Your task to perform on an android device: Open privacy settings Image 0: 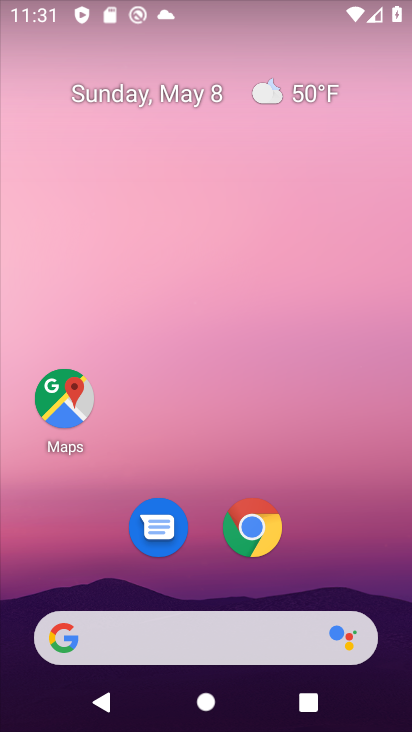
Step 0: drag from (226, 725) to (234, 228)
Your task to perform on an android device: Open privacy settings Image 1: 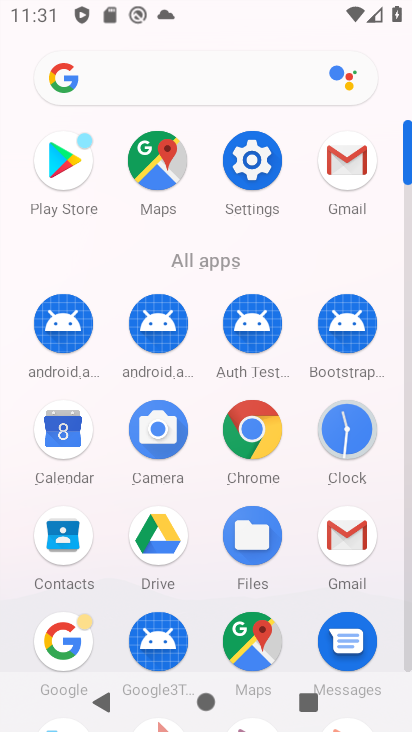
Step 1: click (252, 175)
Your task to perform on an android device: Open privacy settings Image 2: 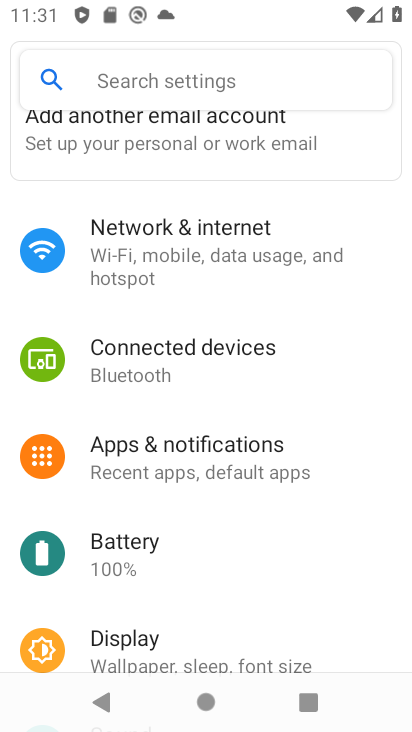
Step 2: drag from (182, 649) to (215, 202)
Your task to perform on an android device: Open privacy settings Image 3: 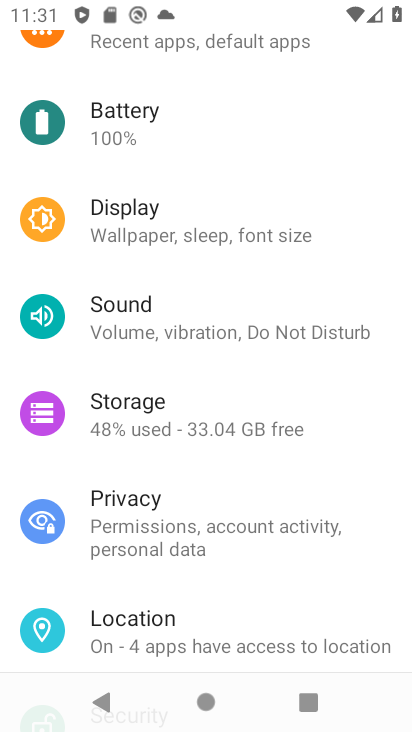
Step 3: click (119, 504)
Your task to perform on an android device: Open privacy settings Image 4: 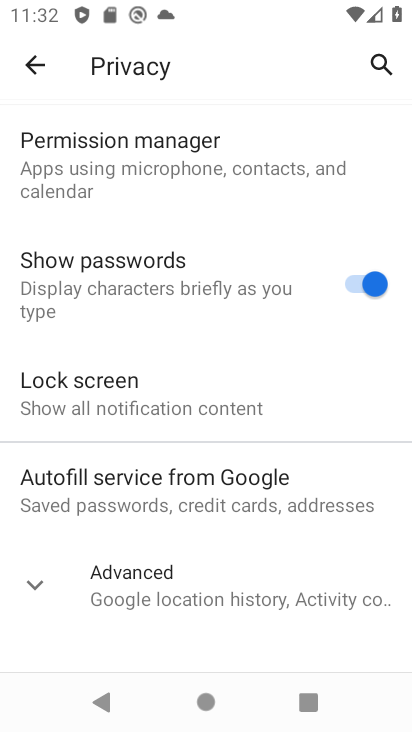
Step 4: task complete